Your task to perform on an android device: stop showing notifications on the lock screen Image 0: 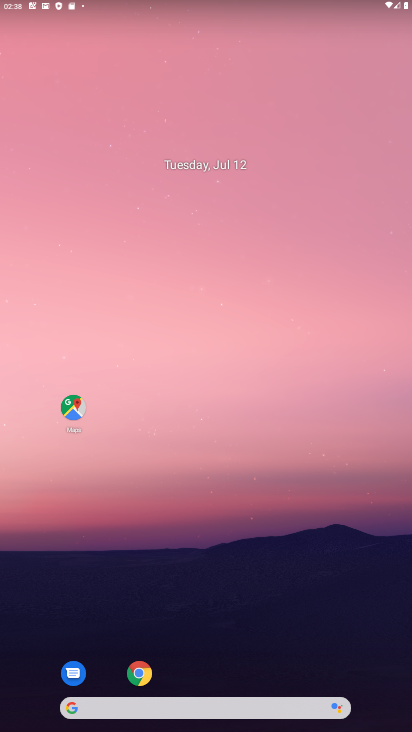
Step 0: press home button
Your task to perform on an android device: stop showing notifications on the lock screen Image 1: 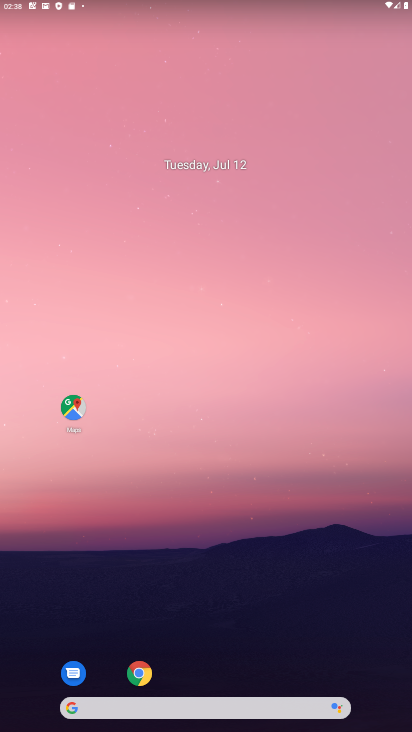
Step 1: drag from (257, 615) to (319, 87)
Your task to perform on an android device: stop showing notifications on the lock screen Image 2: 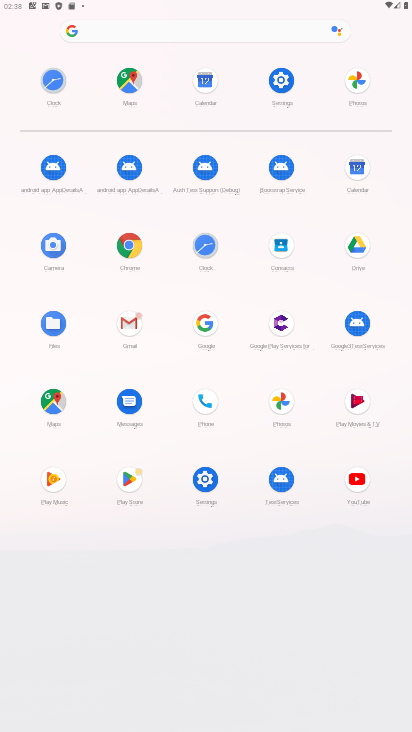
Step 2: click (283, 76)
Your task to perform on an android device: stop showing notifications on the lock screen Image 3: 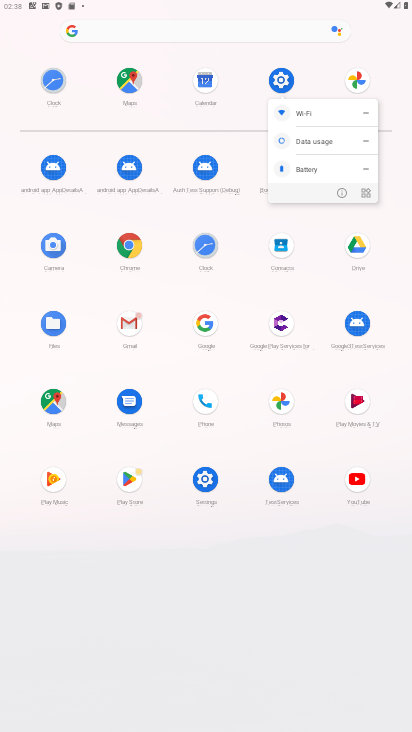
Step 3: click (269, 81)
Your task to perform on an android device: stop showing notifications on the lock screen Image 4: 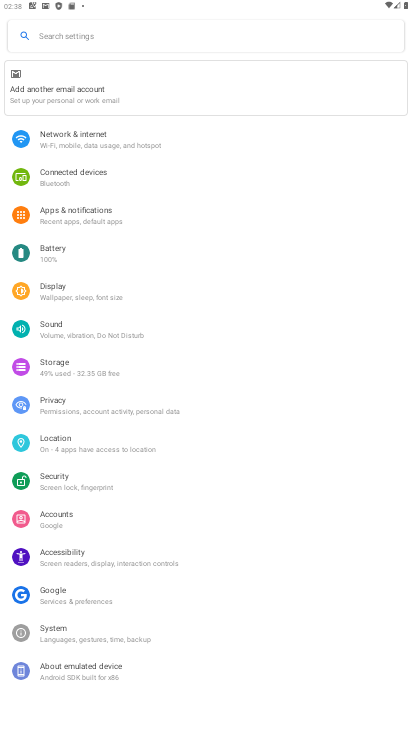
Step 4: click (80, 211)
Your task to perform on an android device: stop showing notifications on the lock screen Image 5: 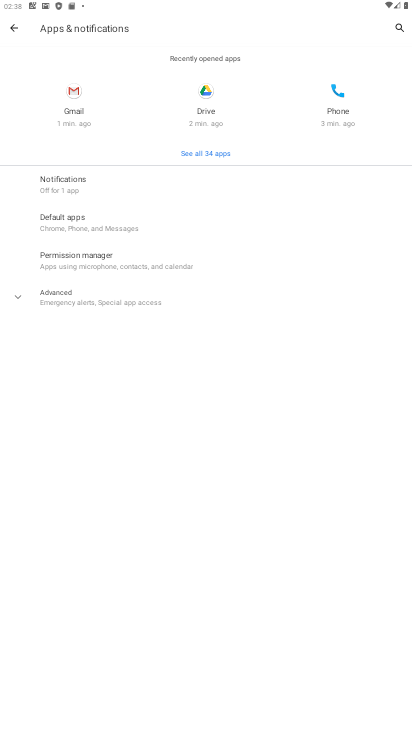
Step 5: click (55, 190)
Your task to perform on an android device: stop showing notifications on the lock screen Image 6: 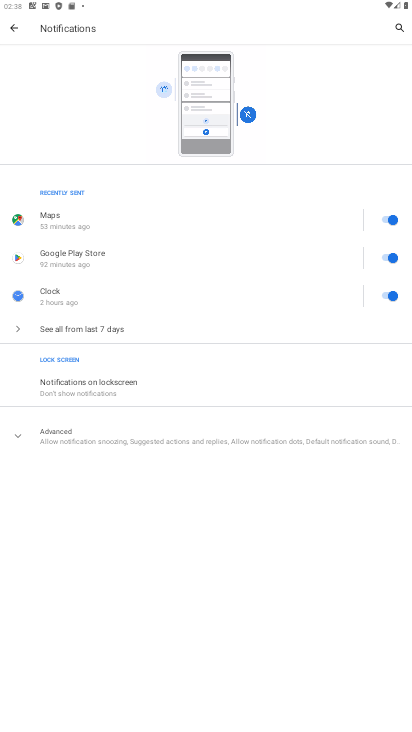
Step 6: click (63, 387)
Your task to perform on an android device: stop showing notifications on the lock screen Image 7: 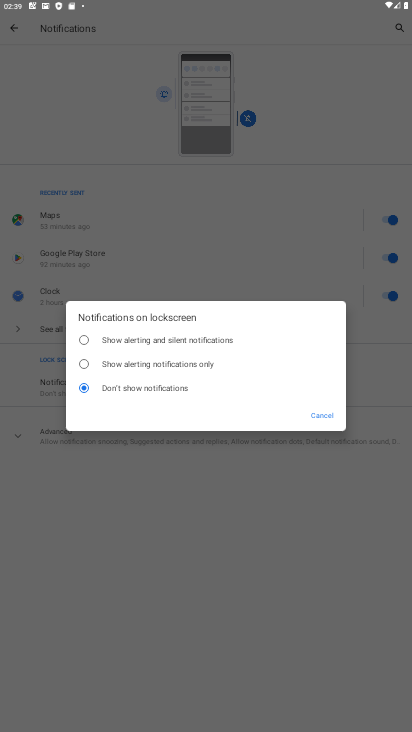
Step 7: task complete